Your task to perform on an android device: toggle translation in the chrome app Image 0: 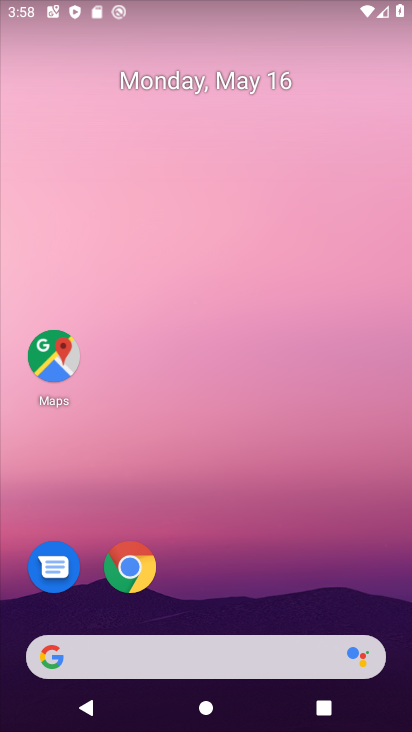
Step 0: drag from (276, 497) to (345, 12)
Your task to perform on an android device: toggle translation in the chrome app Image 1: 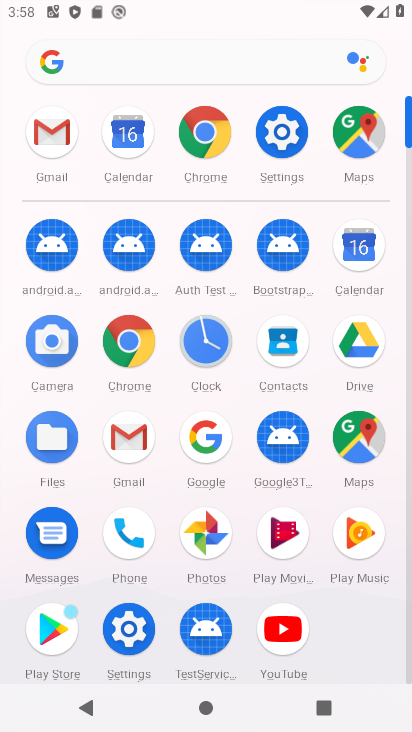
Step 1: click (127, 343)
Your task to perform on an android device: toggle translation in the chrome app Image 2: 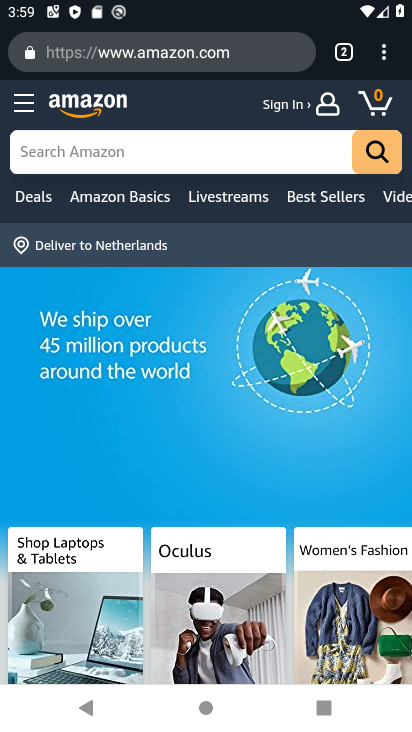
Step 2: click (377, 54)
Your task to perform on an android device: toggle translation in the chrome app Image 3: 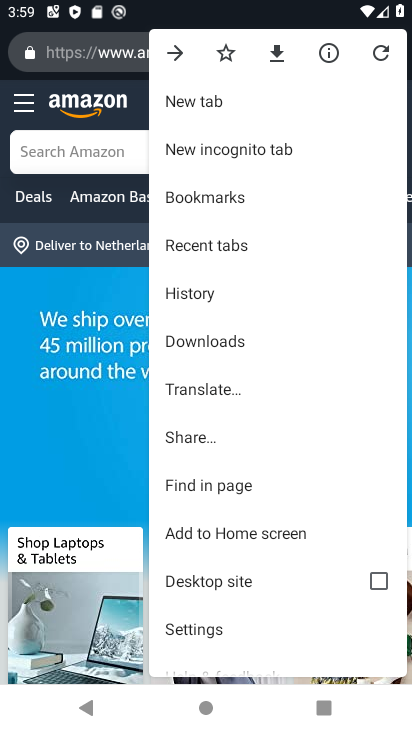
Step 3: click (217, 618)
Your task to perform on an android device: toggle translation in the chrome app Image 4: 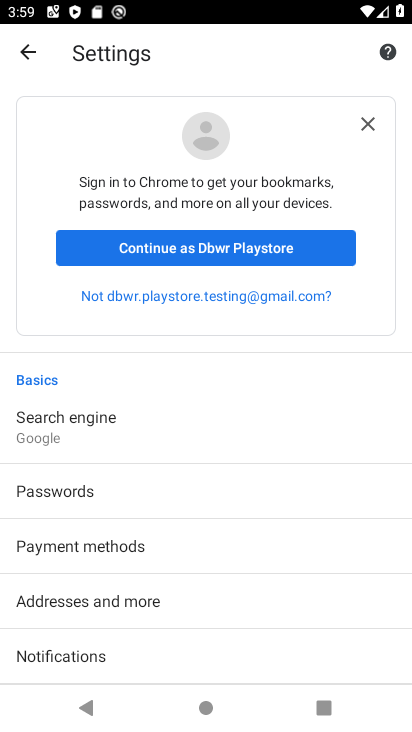
Step 4: drag from (189, 668) to (172, 118)
Your task to perform on an android device: toggle translation in the chrome app Image 5: 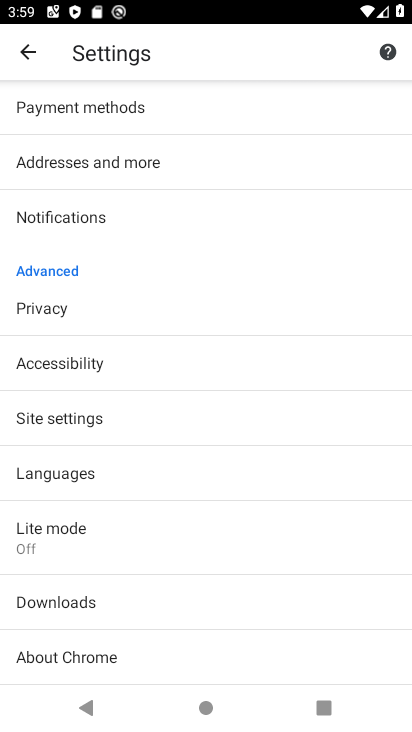
Step 5: drag from (162, 668) to (193, 464)
Your task to perform on an android device: toggle translation in the chrome app Image 6: 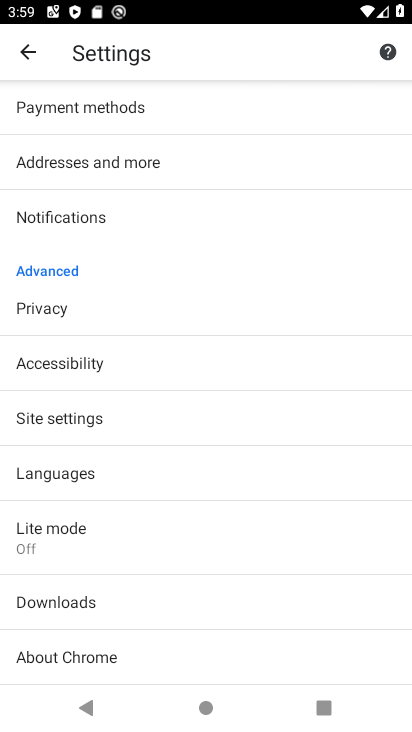
Step 6: click (58, 459)
Your task to perform on an android device: toggle translation in the chrome app Image 7: 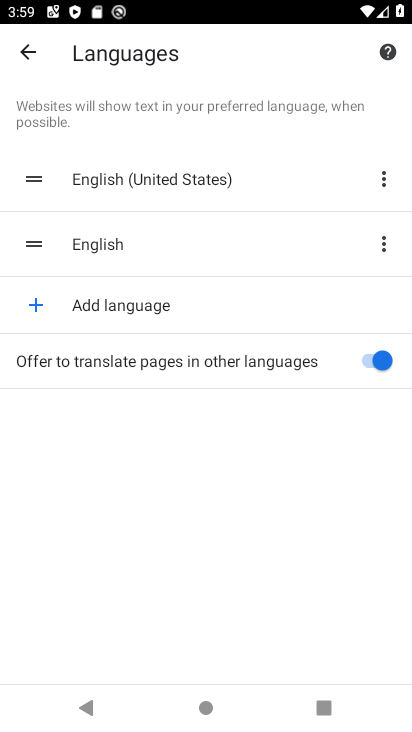
Step 7: task complete